Your task to perform on an android device: show emergency info Image 0: 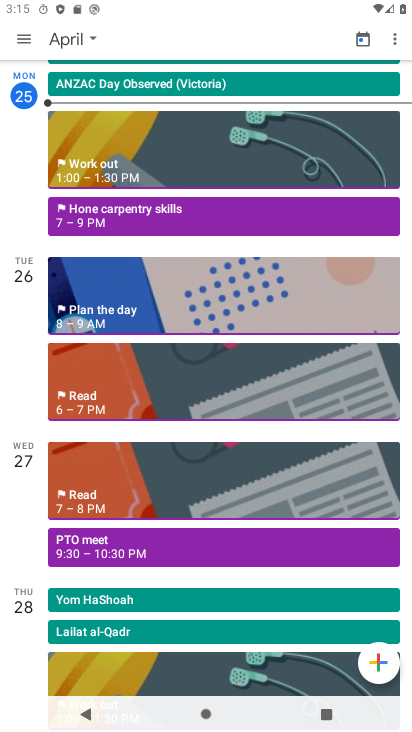
Step 0: press home button
Your task to perform on an android device: show emergency info Image 1: 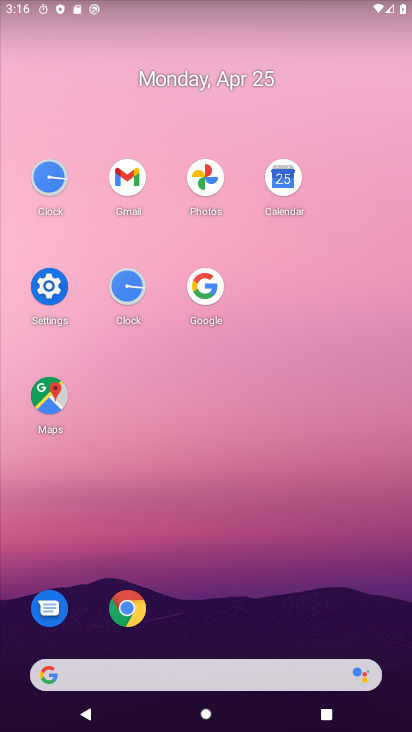
Step 1: click (40, 279)
Your task to perform on an android device: show emergency info Image 2: 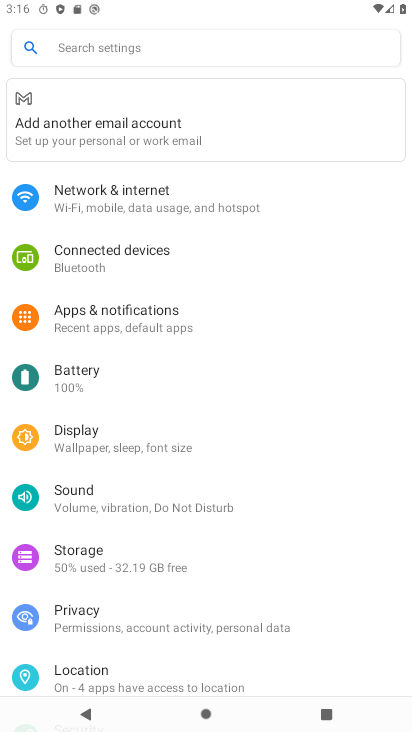
Step 2: drag from (222, 655) to (214, 164)
Your task to perform on an android device: show emergency info Image 3: 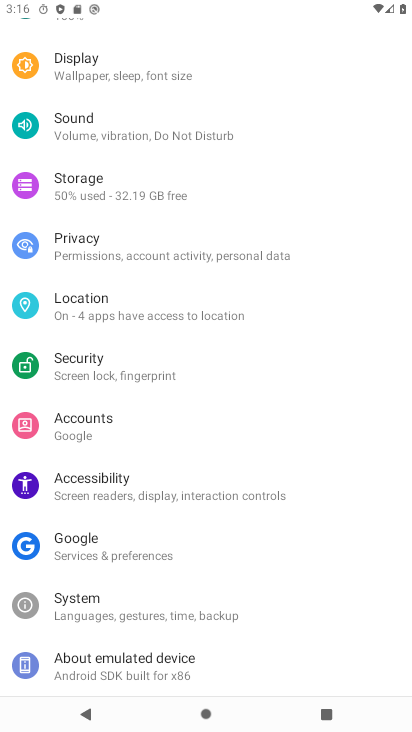
Step 3: drag from (182, 602) to (167, 226)
Your task to perform on an android device: show emergency info Image 4: 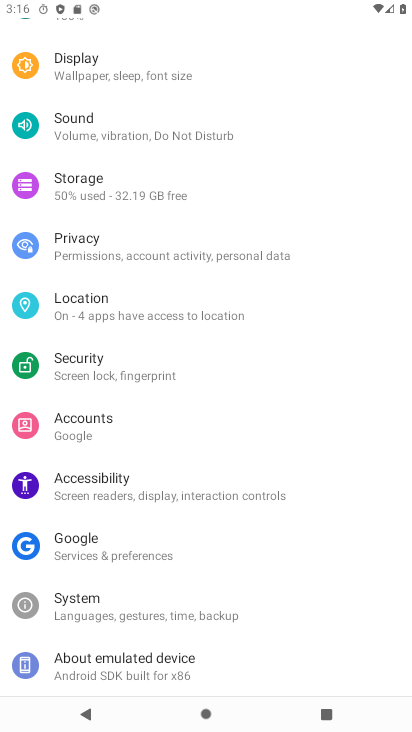
Step 4: click (166, 650)
Your task to perform on an android device: show emergency info Image 5: 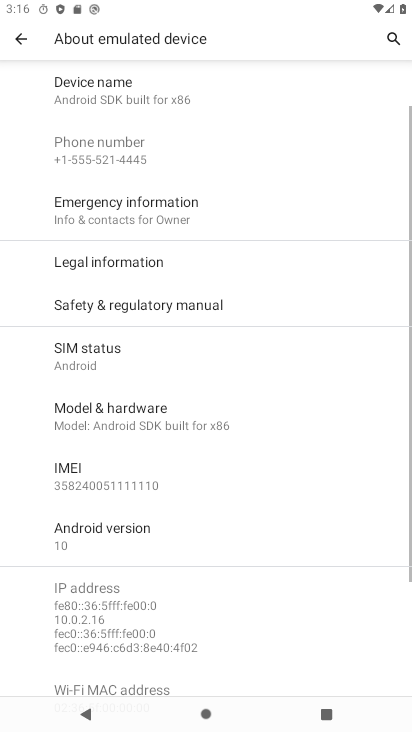
Step 5: click (158, 218)
Your task to perform on an android device: show emergency info Image 6: 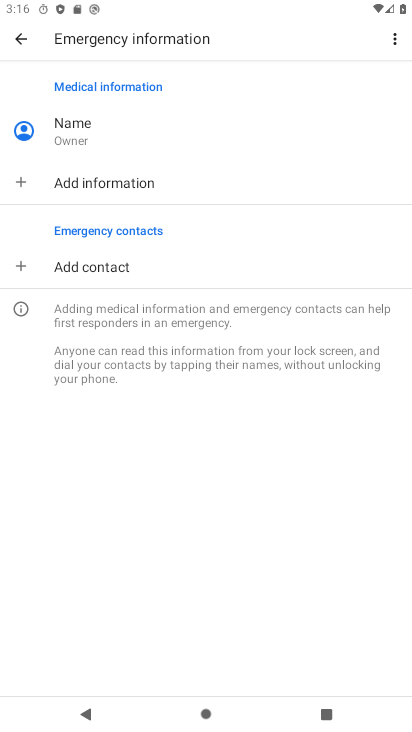
Step 6: task complete